Your task to perform on an android device: open sync settings in chrome Image 0: 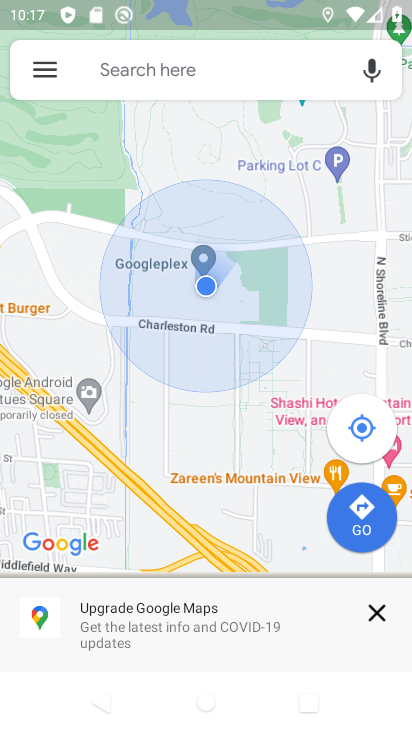
Step 0: press home button
Your task to perform on an android device: open sync settings in chrome Image 1: 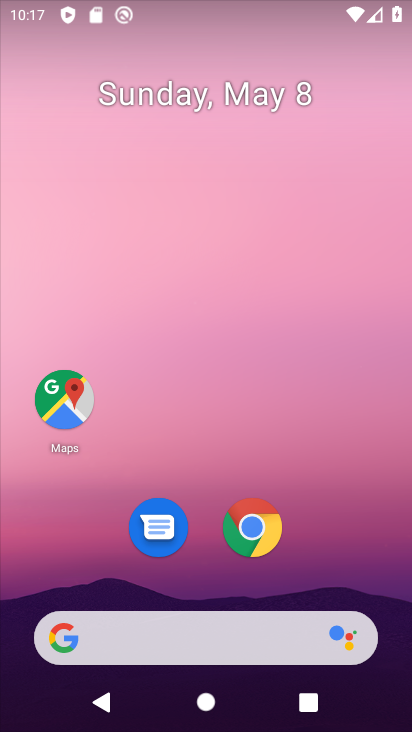
Step 1: click (252, 530)
Your task to perform on an android device: open sync settings in chrome Image 2: 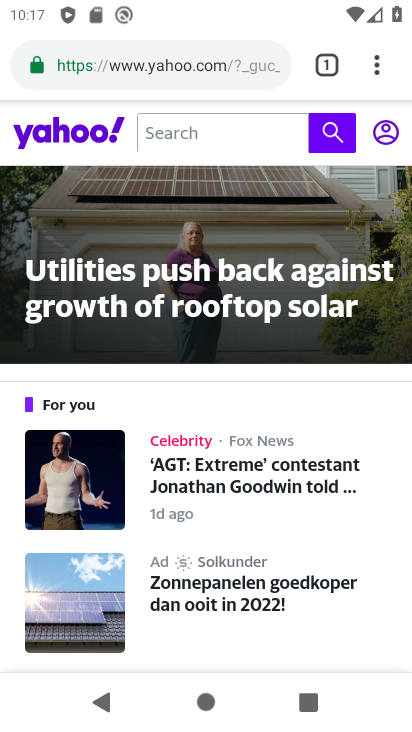
Step 2: drag from (382, 67) to (199, 573)
Your task to perform on an android device: open sync settings in chrome Image 3: 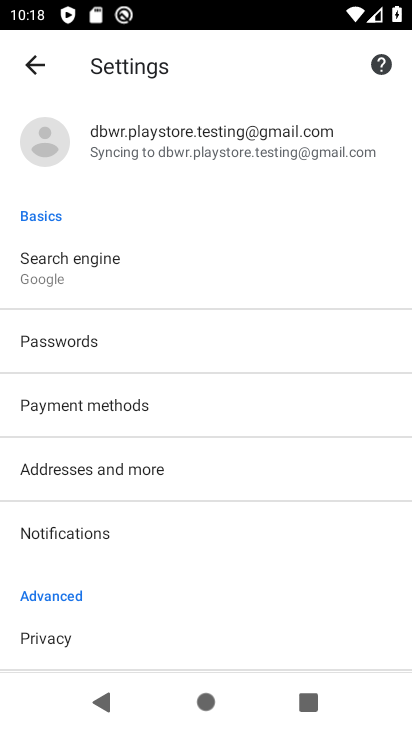
Step 3: drag from (195, 566) to (162, 124)
Your task to perform on an android device: open sync settings in chrome Image 4: 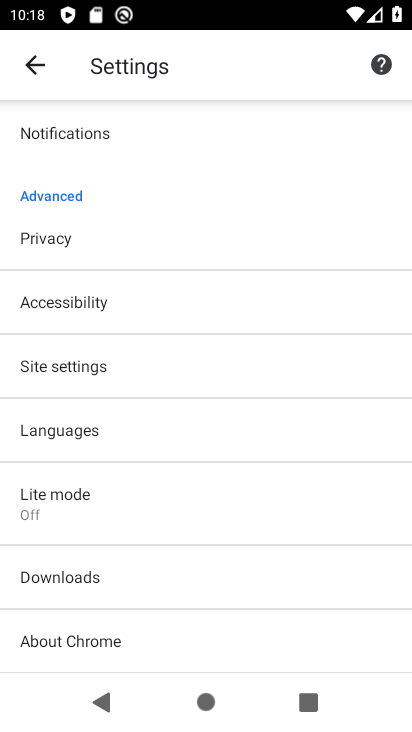
Step 4: click (101, 386)
Your task to perform on an android device: open sync settings in chrome Image 5: 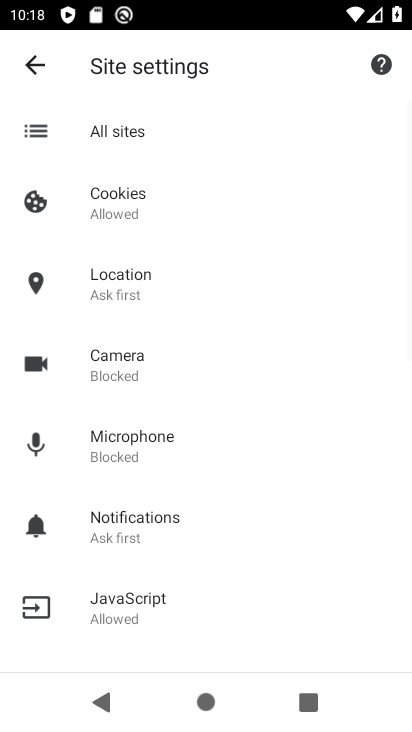
Step 5: drag from (214, 558) to (268, 205)
Your task to perform on an android device: open sync settings in chrome Image 6: 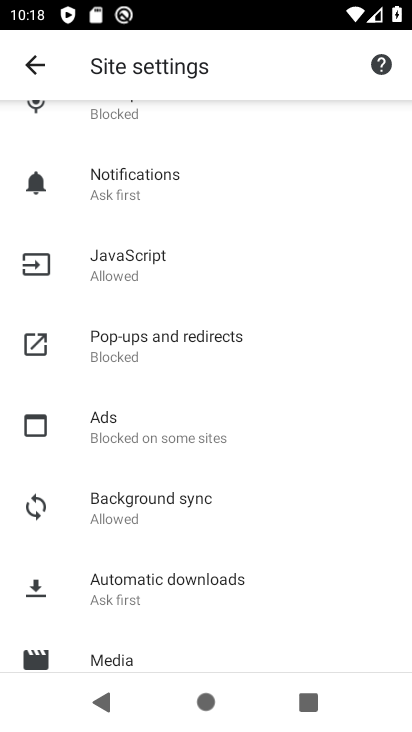
Step 6: drag from (228, 615) to (236, 309)
Your task to perform on an android device: open sync settings in chrome Image 7: 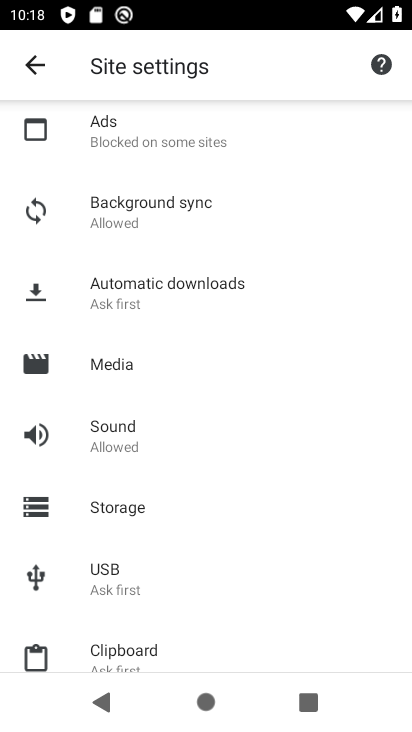
Step 7: click (195, 221)
Your task to perform on an android device: open sync settings in chrome Image 8: 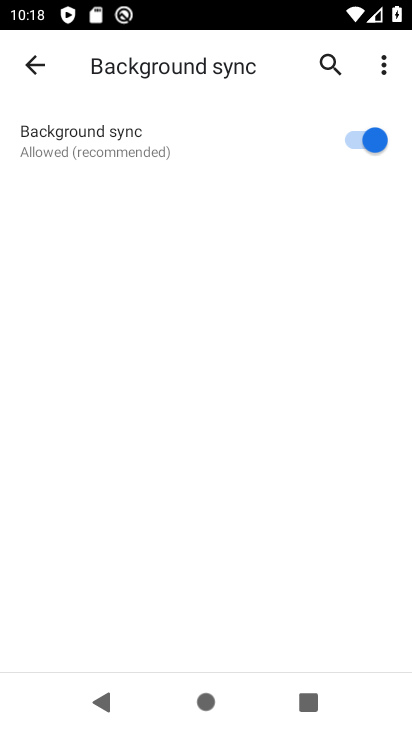
Step 8: task complete